Your task to perform on an android device: all mails in gmail Image 0: 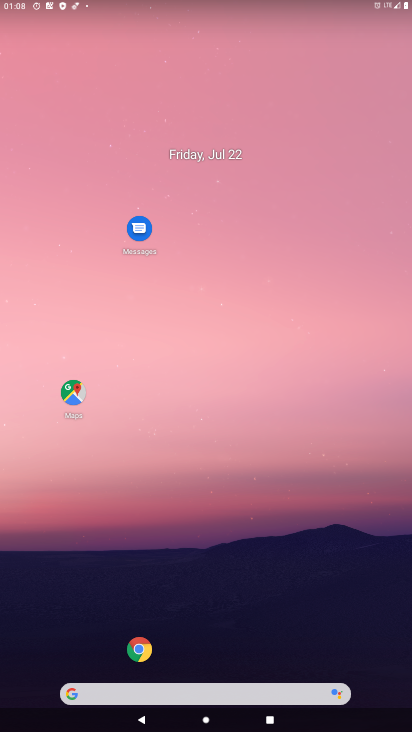
Step 0: drag from (269, 382) to (365, 84)
Your task to perform on an android device: all mails in gmail Image 1: 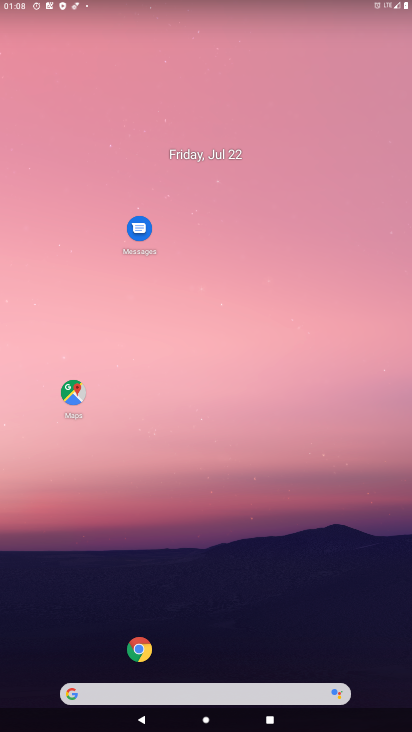
Step 1: drag from (40, 691) to (272, 257)
Your task to perform on an android device: all mails in gmail Image 2: 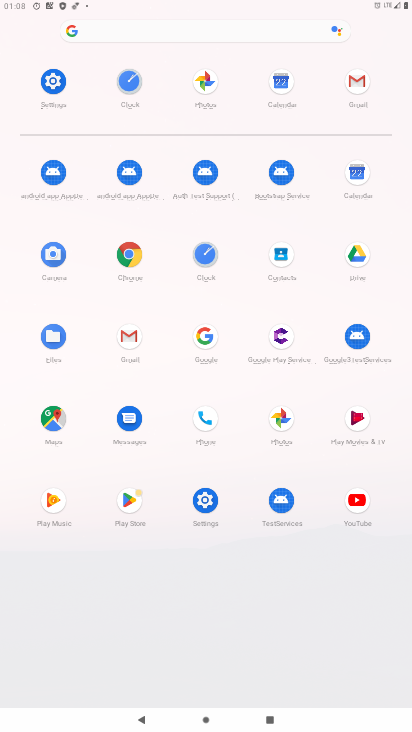
Step 2: click (129, 331)
Your task to perform on an android device: all mails in gmail Image 3: 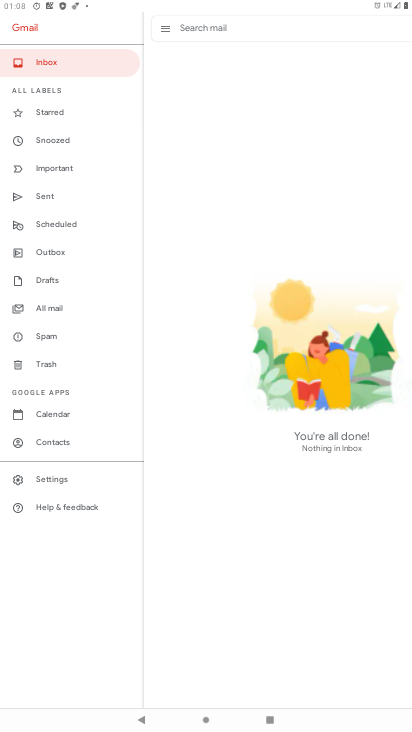
Step 3: click (64, 309)
Your task to perform on an android device: all mails in gmail Image 4: 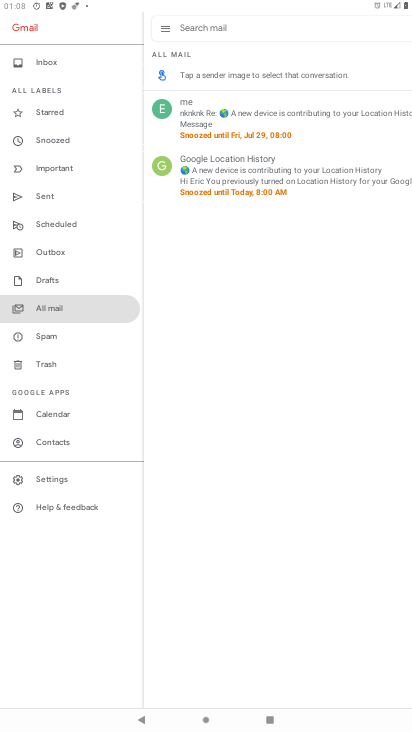
Step 4: task complete